Your task to perform on an android device: Search for Mexican restaurants on Maps Image 0: 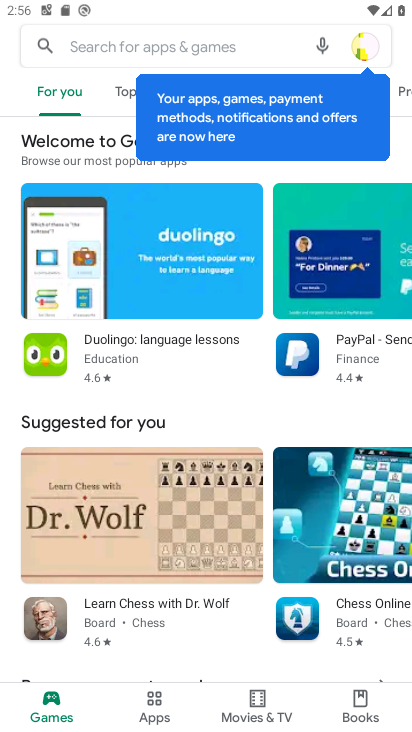
Step 0: press home button
Your task to perform on an android device: Search for Mexican restaurants on Maps Image 1: 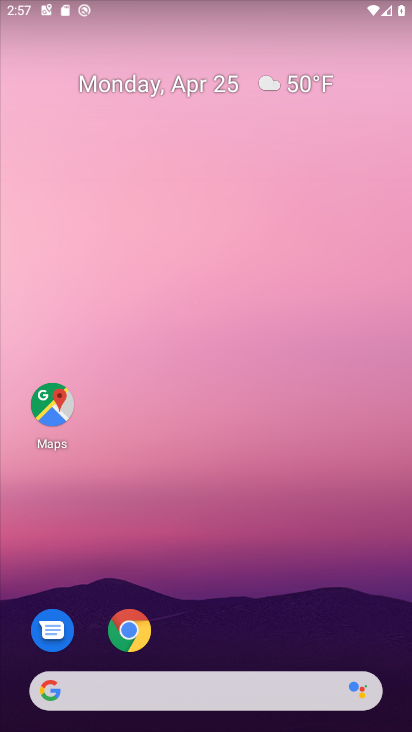
Step 1: click (40, 406)
Your task to perform on an android device: Search for Mexican restaurants on Maps Image 2: 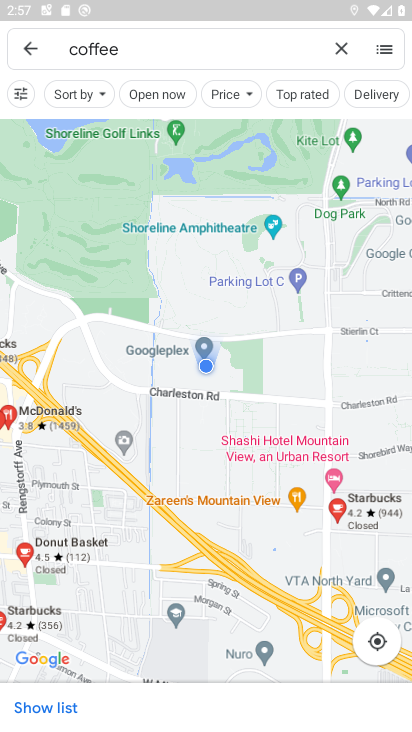
Step 2: click (338, 45)
Your task to perform on an android device: Search for Mexican restaurants on Maps Image 3: 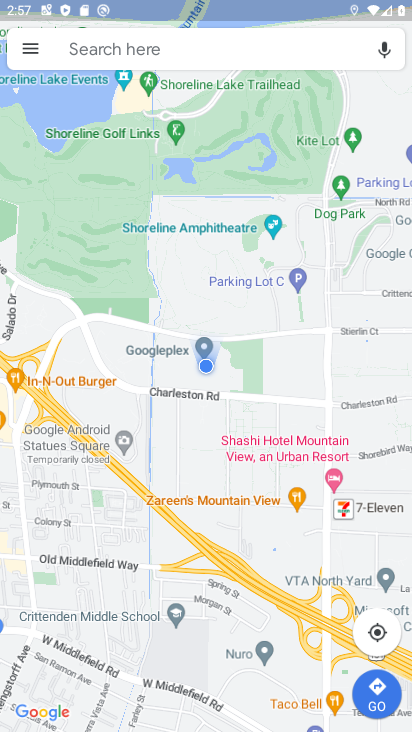
Step 3: click (222, 57)
Your task to perform on an android device: Search for Mexican restaurants on Maps Image 4: 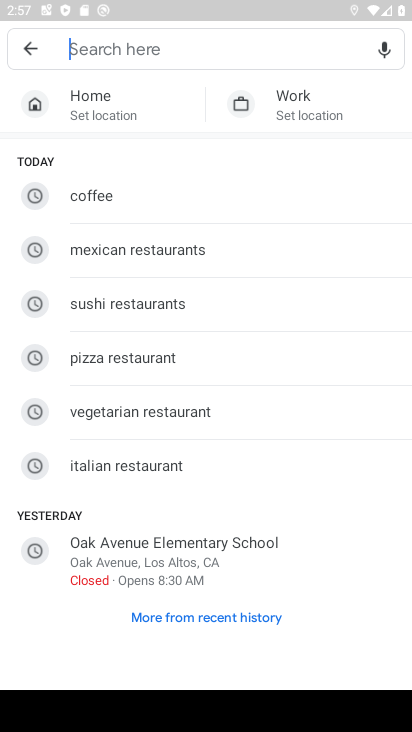
Step 4: click (133, 250)
Your task to perform on an android device: Search for Mexican restaurants on Maps Image 5: 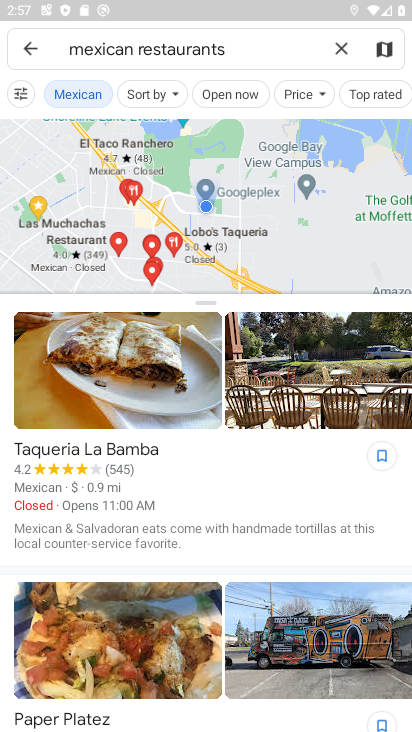
Step 5: task complete